Your task to perform on an android device: Go to Yahoo.com Image 0: 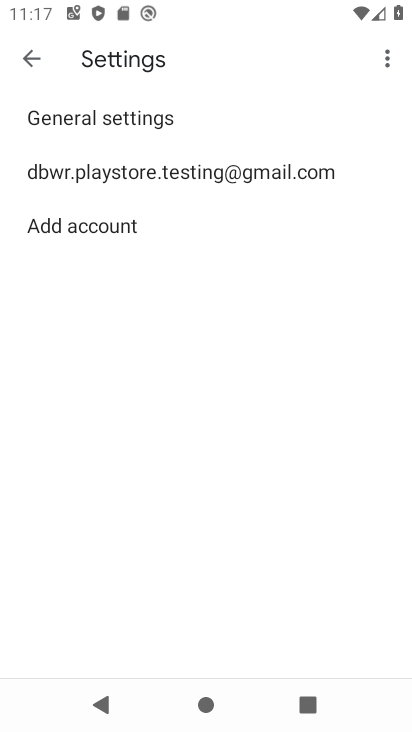
Step 0: press home button
Your task to perform on an android device: Go to Yahoo.com Image 1: 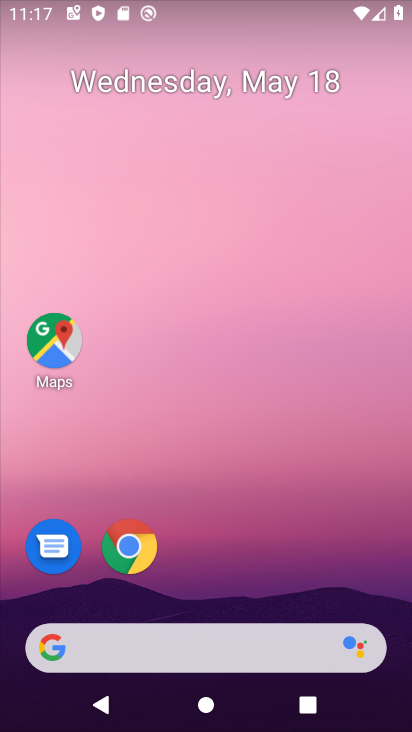
Step 1: click (122, 558)
Your task to perform on an android device: Go to Yahoo.com Image 2: 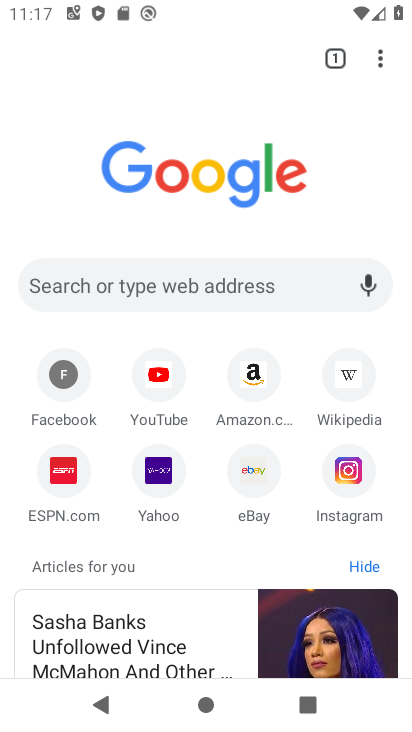
Step 2: click (157, 477)
Your task to perform on an android device: Go to Yahoo.com Image 3: 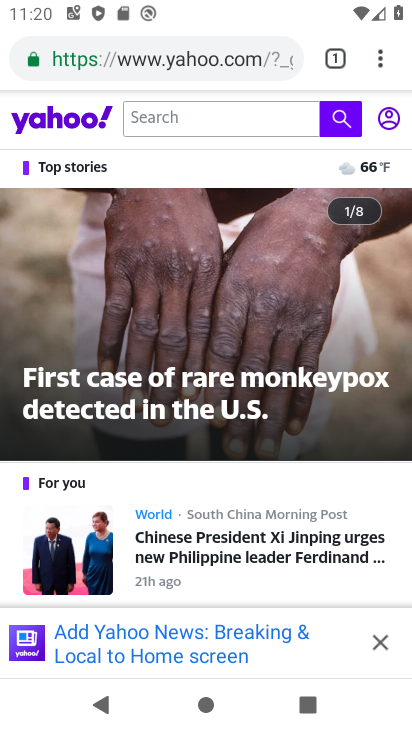
Step 3: task complete